Your task to perform on an android device: Open Google Maps and go to "Timeline" Image 0: 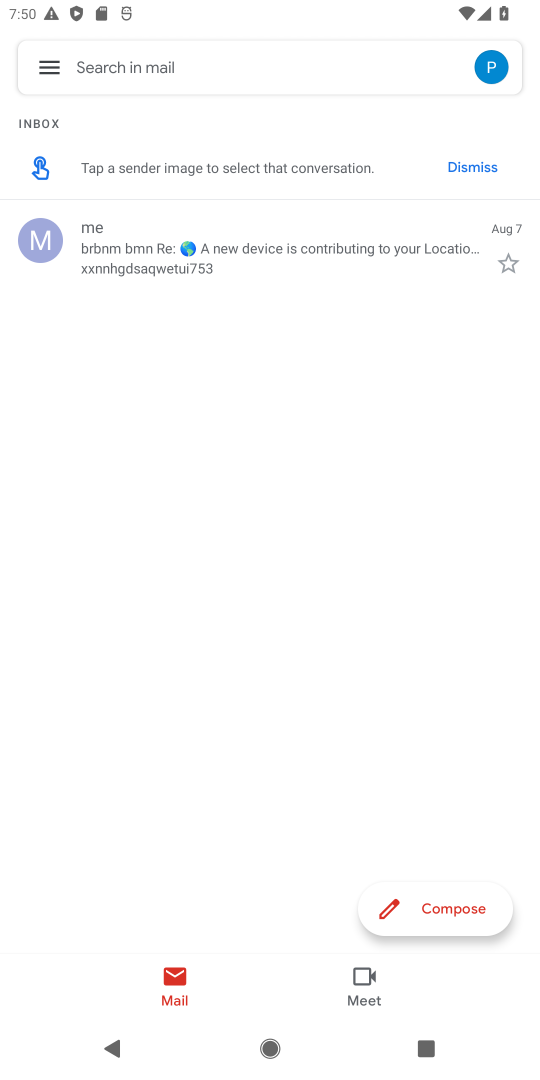
Step 0: press home button
Your task to perform on an android device: Open Google Maps and go to "Timeline" Image 1: 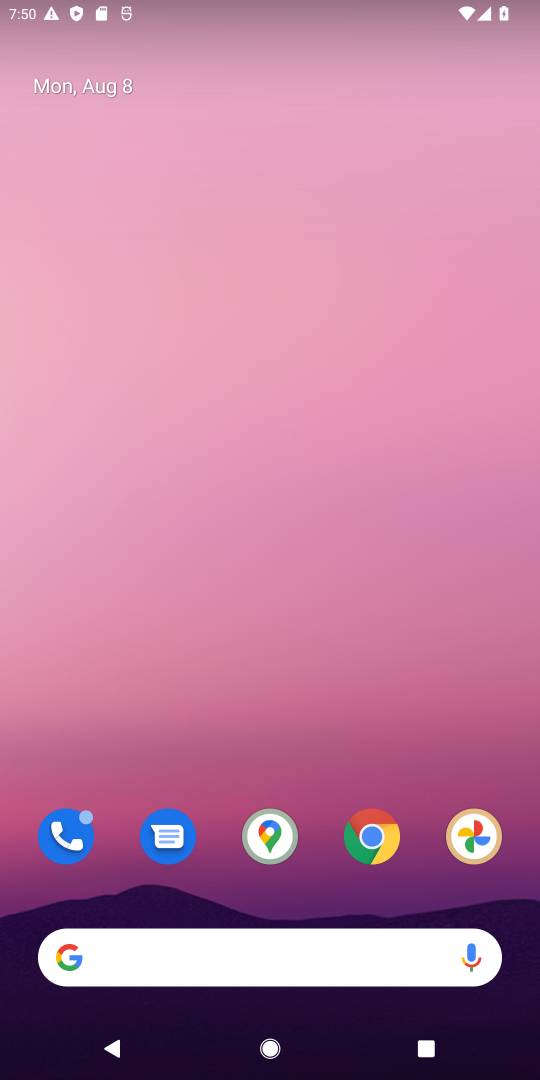
Step 1: drag from (441, 785) to (395, 144)
Your task to perform on an android device: Open Google Maps and go to "Timeline" Image 2: 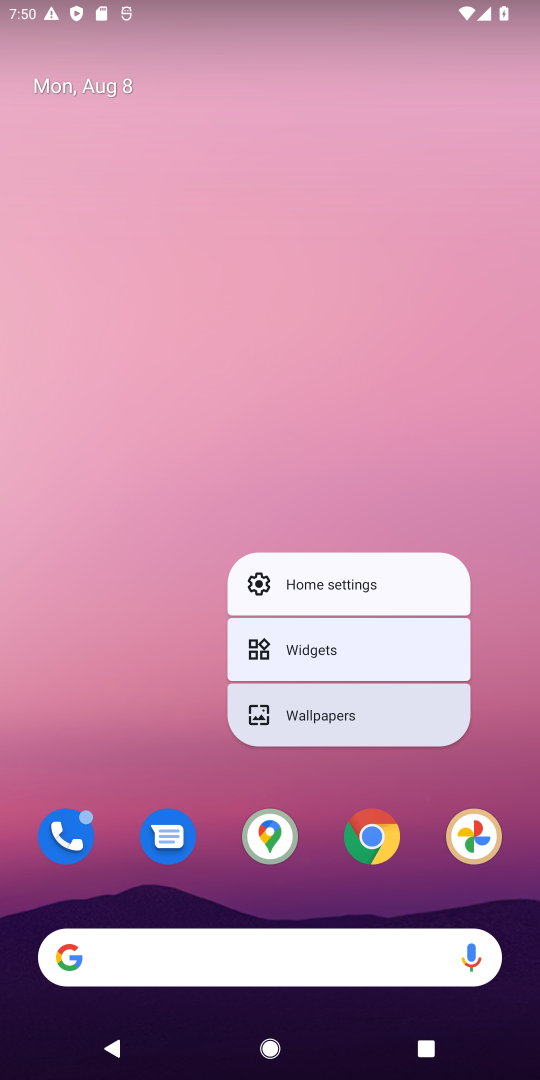
Step 2: drag from (536, 828) to (477, 186)
Your task to perform on an android device: Open Google Maps and go to "Timeline" Image 3: 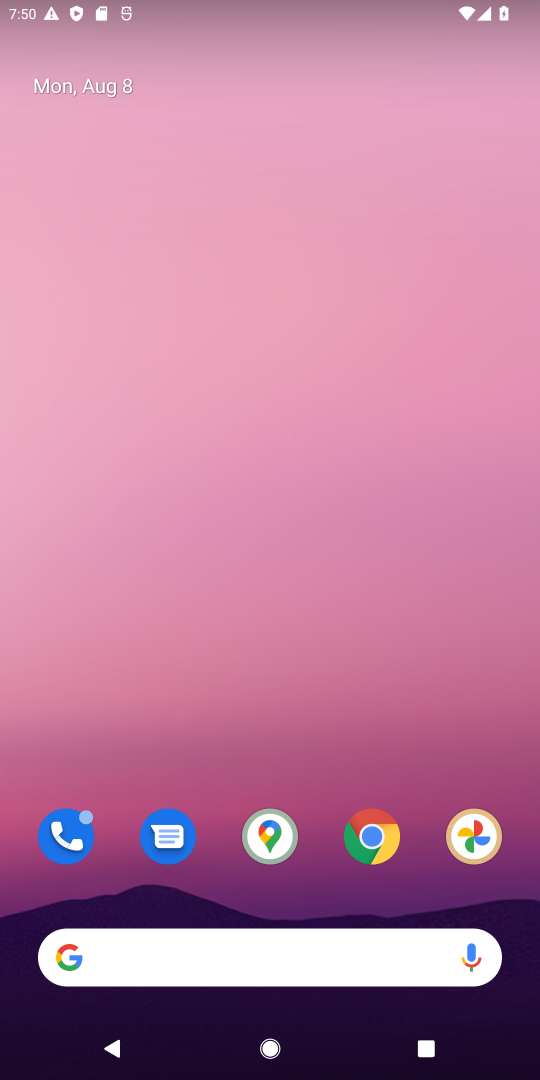
Step 3: drag from (434, 774) to (427, 59)
Your task to perform on an android device: Open Google Maps and go to "Timeline" Image 4: 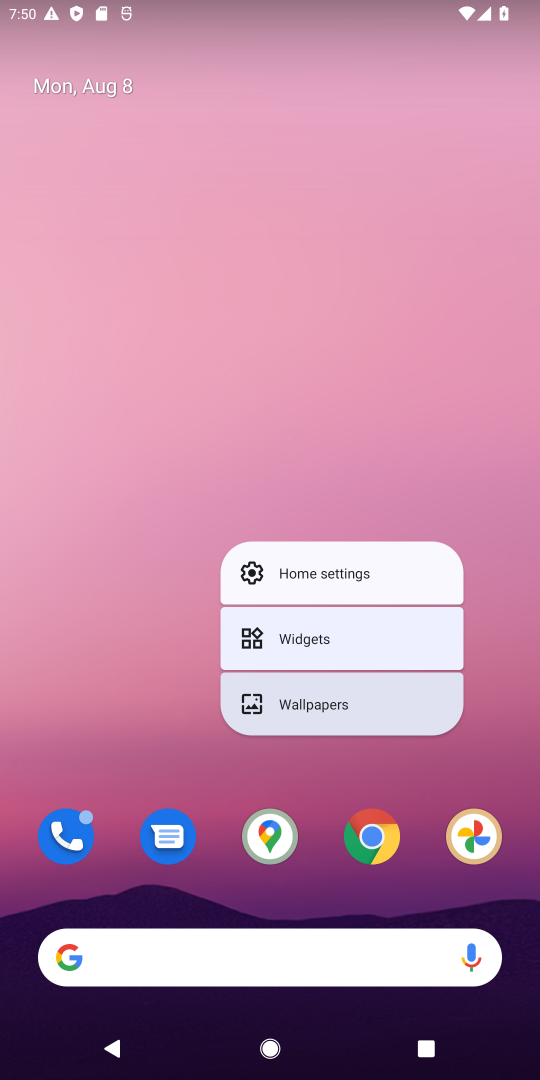
Step 4: drag from (533, 953) to (492, 266)
Your task to perform on an android device: Open Google Maps and go to "Timeline" Image 5: 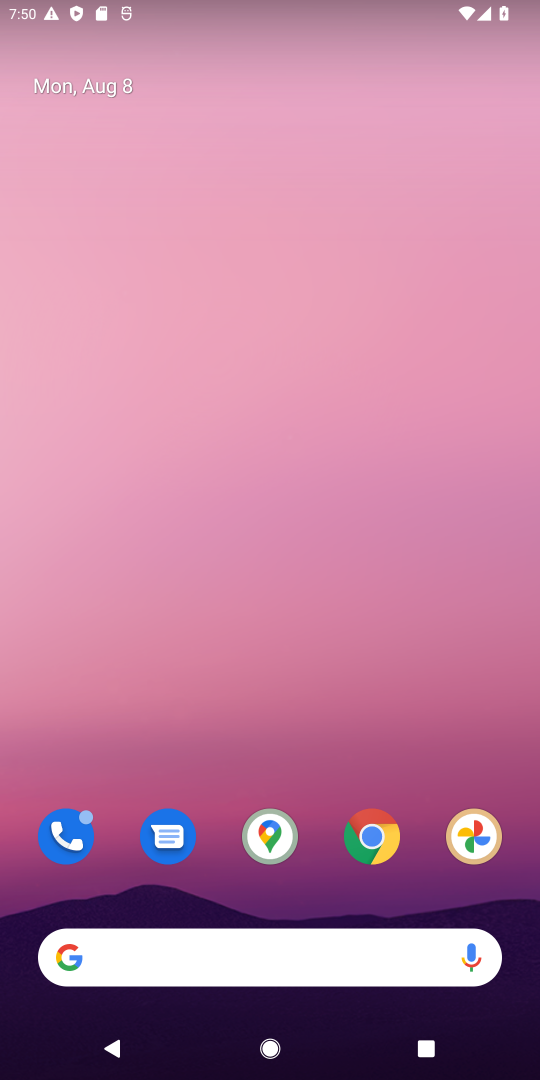
Step 5: drag from (437, 904) to (430, 414)
Your task to perform on an android device: Open Google Maps and go to "Timeline" Image 6: 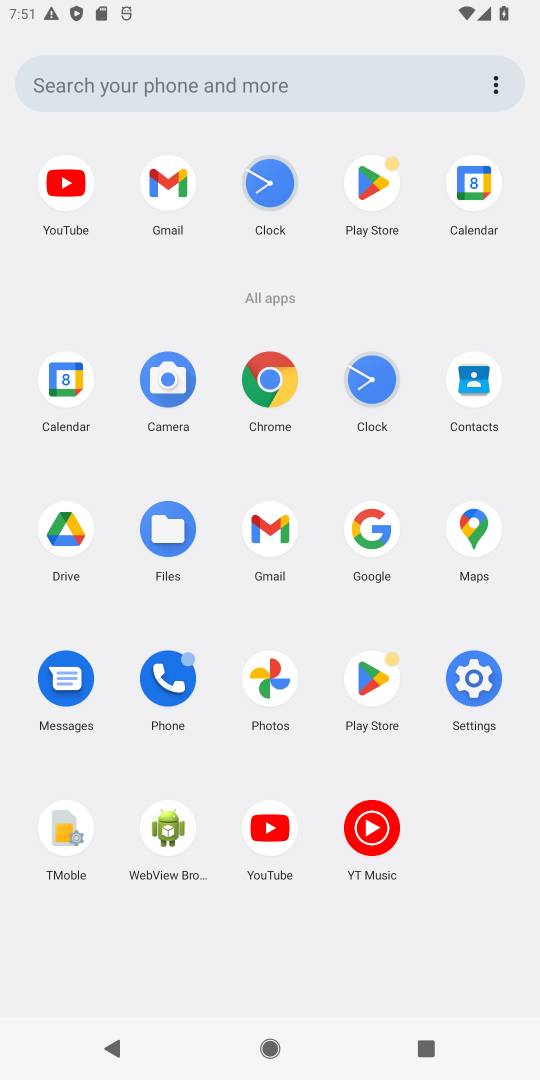
Step 6: click (482, 537)
Your task to perform on an android device: Open Google Maps and go to "Timeline" Image 7: 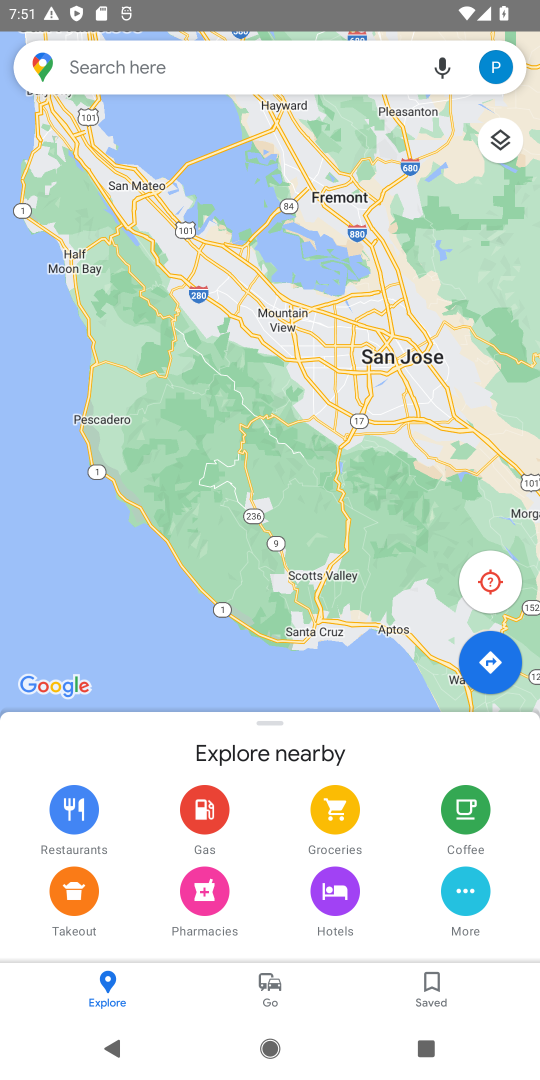
Step 7: click (490, 81)
Your task to perform on an android device: Open Google Maps and go to "Timeline" Image 8: 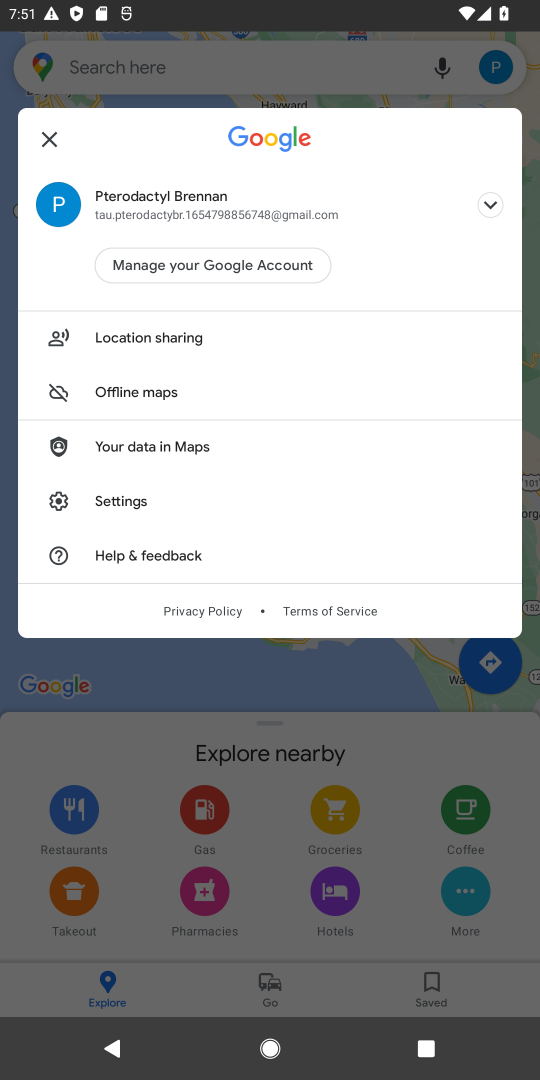
Step 8: task complete